Your task to perform on an android device: allow notifications from all sites in the chrome app Image 0: 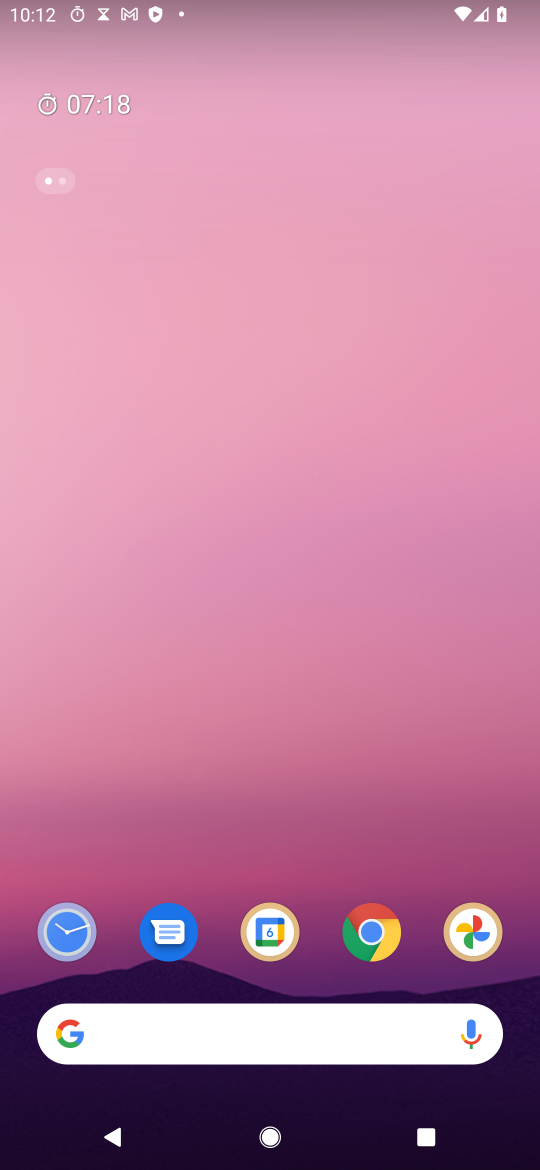
Step 0: drag from (446, 870) to (343, 187)
Your task to perform on an android device: allow notifications from all sites in the chrome app Image 1: 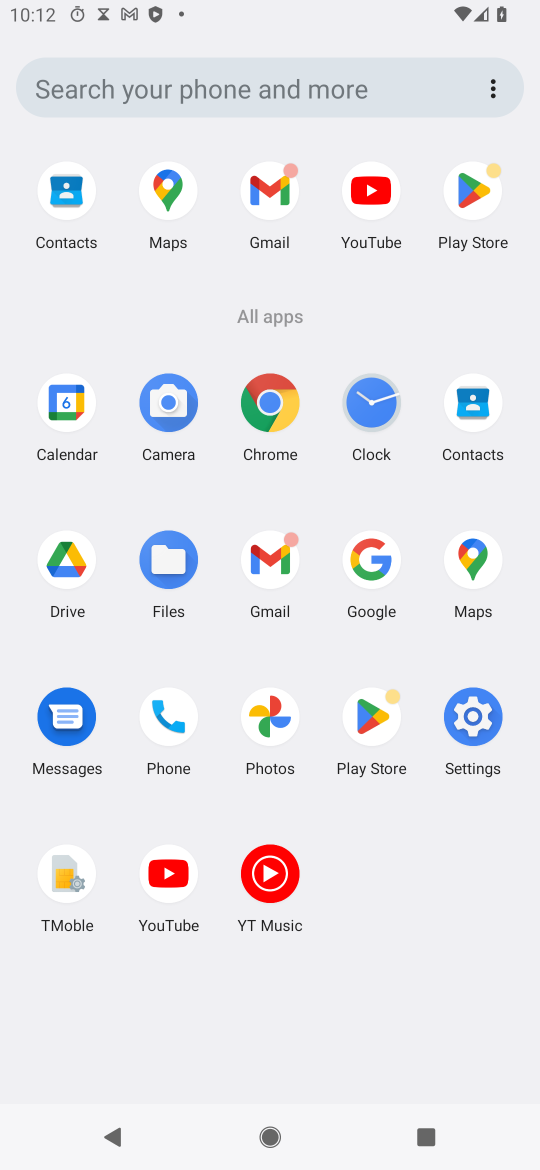
Step 1: click (262, 416)
Your task to perform on an android device: allow notifications from all sites in the chrome app Image 2: 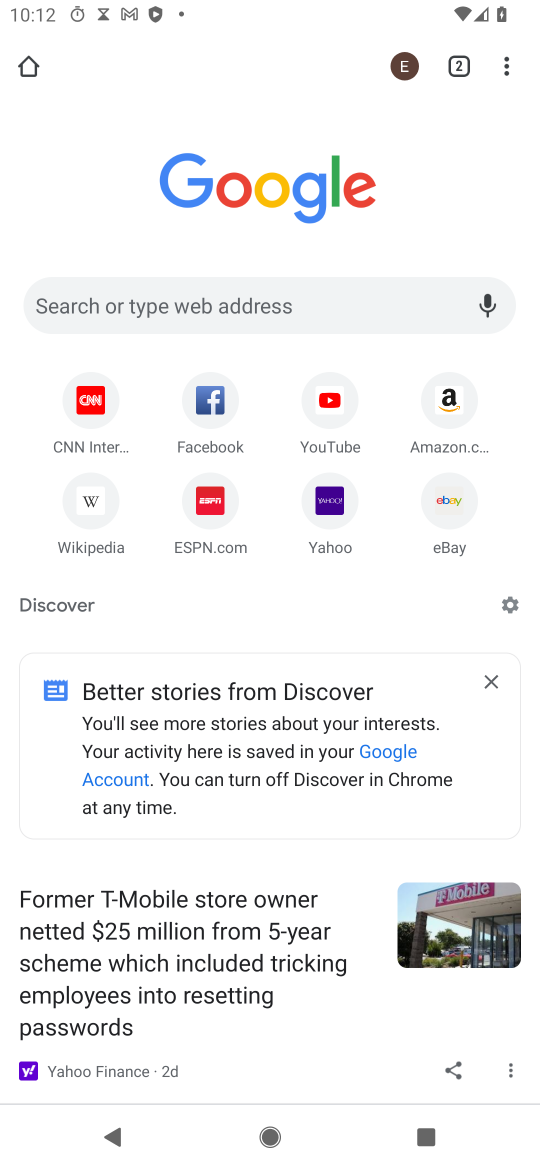
Step 2: click (517, 63)
Your task to perform on an android device: allow notifications from all sites in the chrome app Image 3: 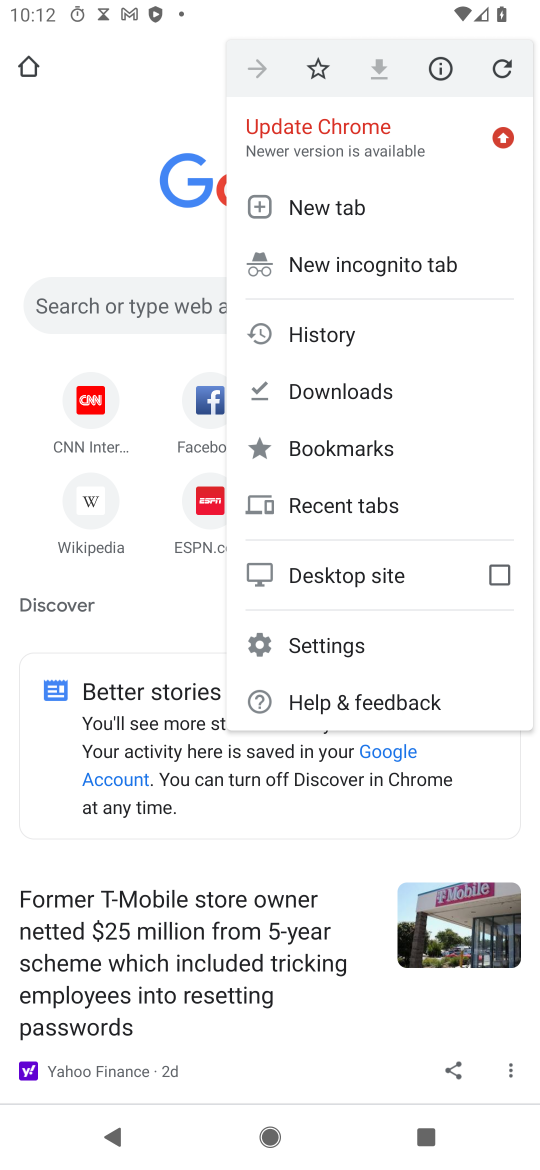
Step 3: click (343, 644)
Your task to perform on an android device: allow notifications from all sites in the chrome app Image 4: 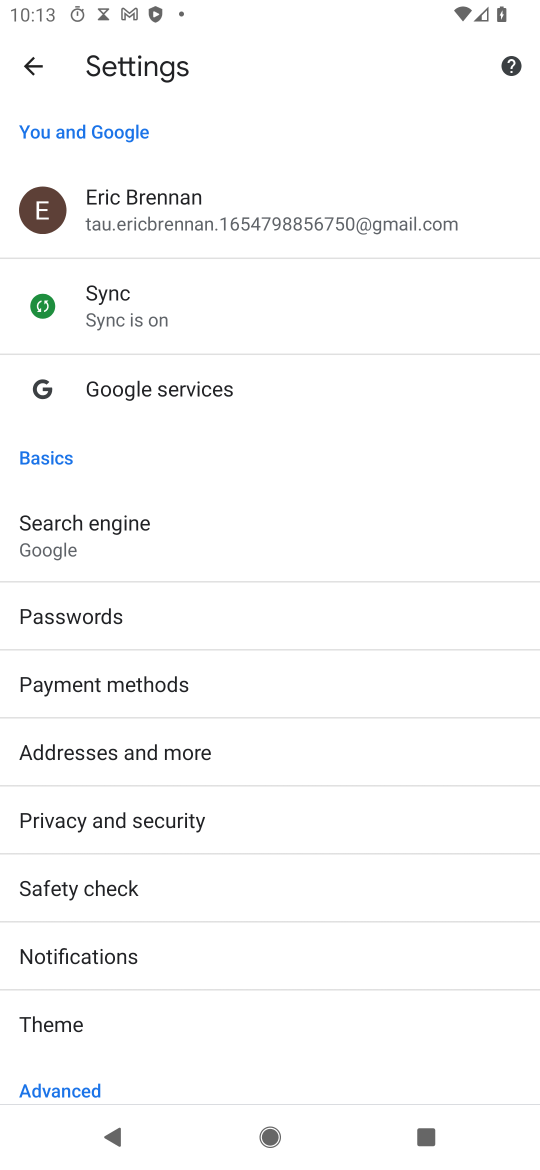
Step 4: drag from (205, 1101) to (162, 357)
Your task to perform on an android device: allow notifications from all sites in the chrome app Image 5: 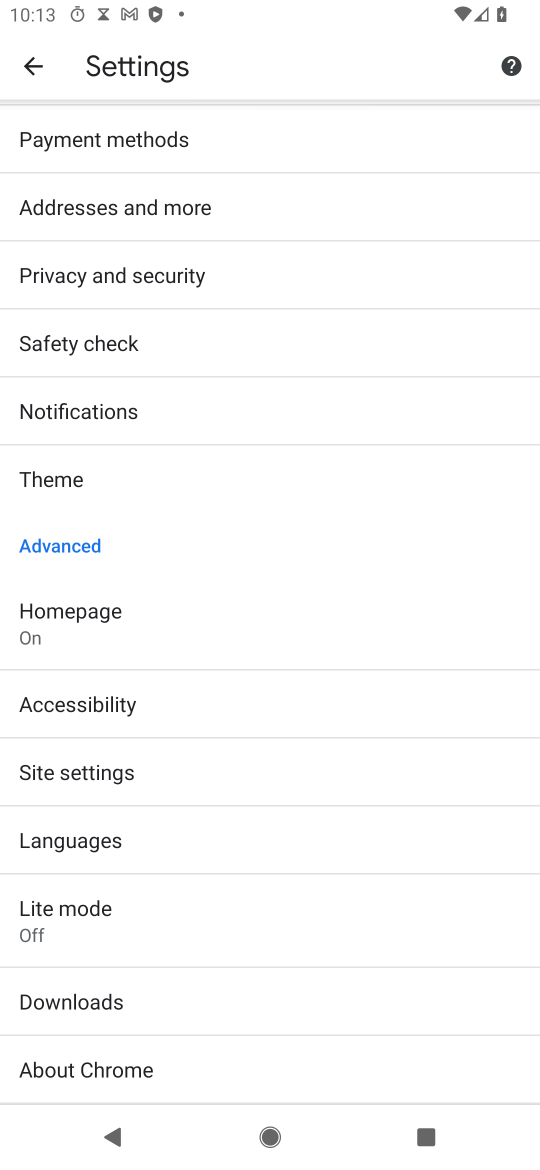
Step 5: click (202, 774)
Your task to perform on an android device: allow notifications from all sites in the chrome app Image 6: 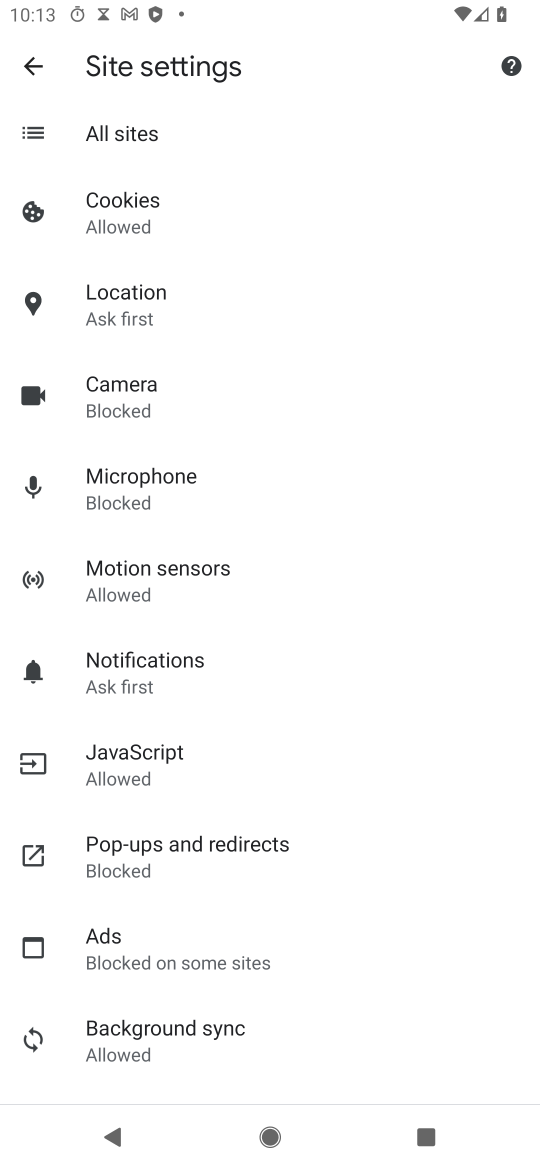
Step 6: click (250, 689)
Your task to perform on an android device: allow notifications from all sites in the chrome app Image 7: 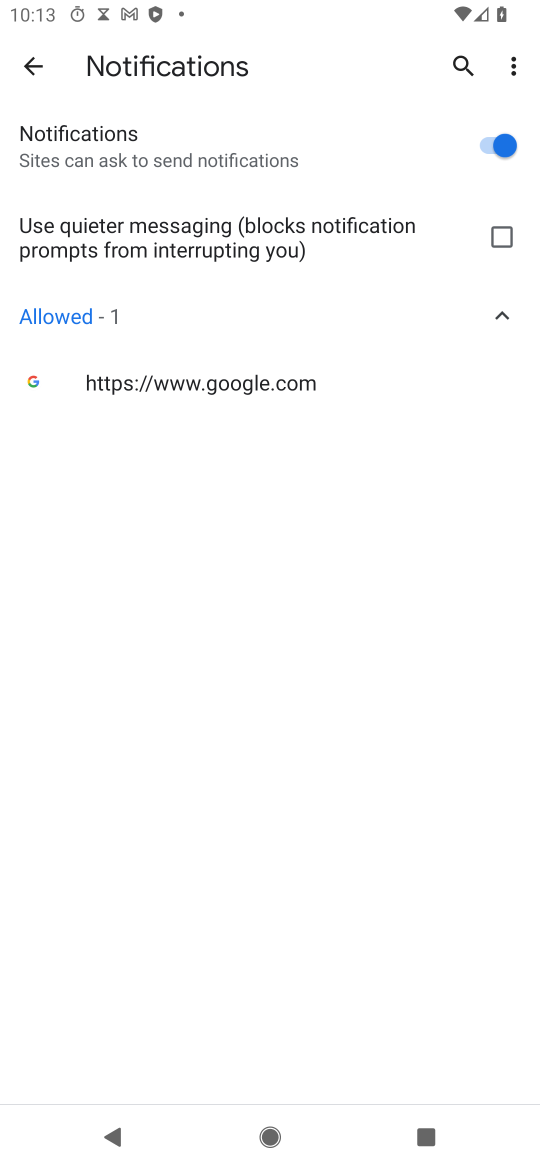
Step 7: task complete